Your task to perform on an android device: turn off sleep mode Image 0: 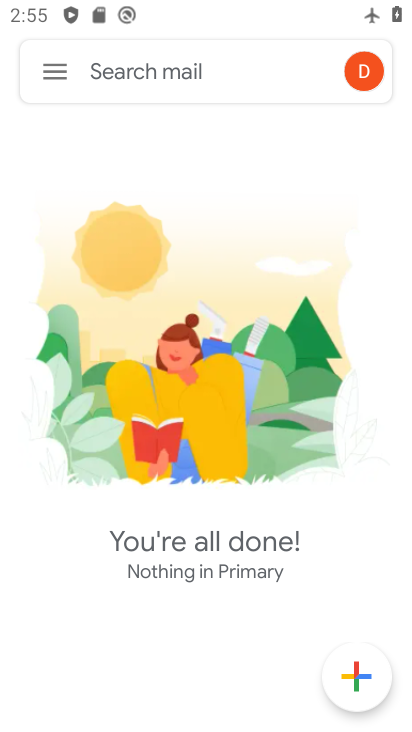
Step 0: press home button
Your task to perform on an android device: turn off sleep mode Image 1: 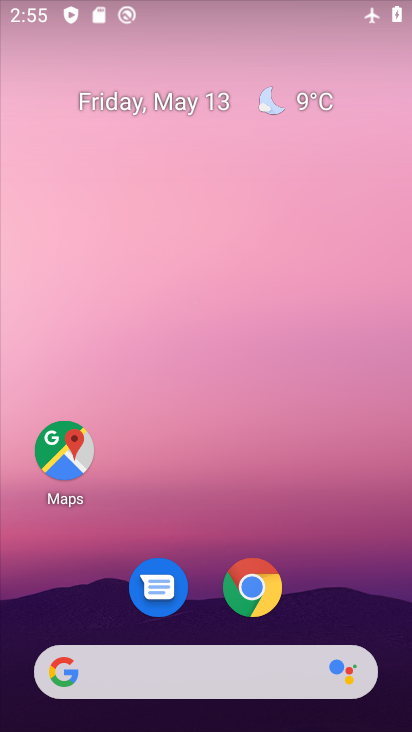
Step 1: drag from (314, 553) to (318, 94)
Your task to perform on an android device: turn off sleep mode Image 2: 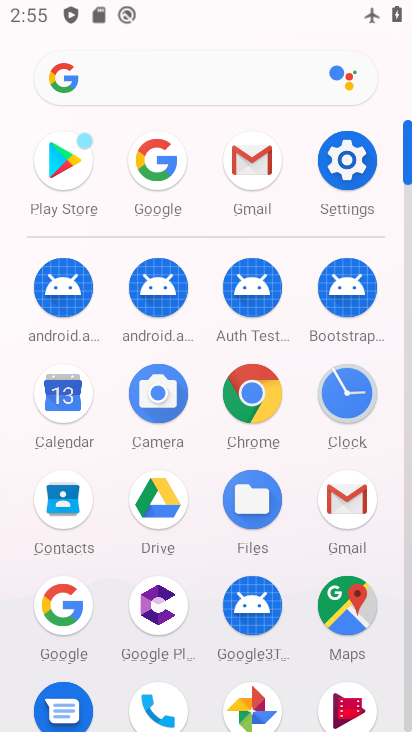
Step 2: click (340, 181)
Your task to perform on an android device: turn off sleep mode Image 3: 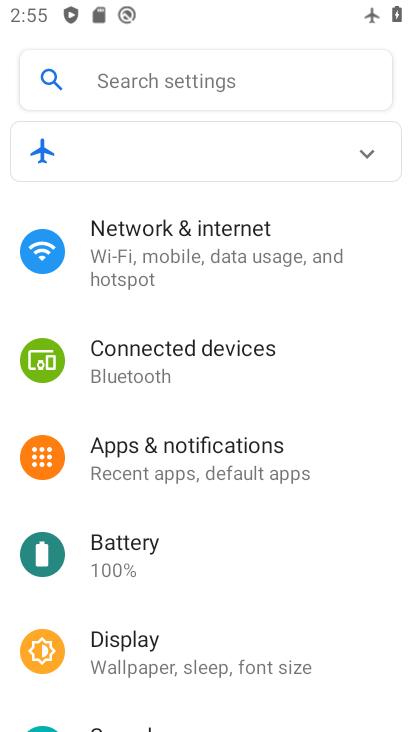
Step 3: drag from (185, 637) to (227, 254)
Your task to perform on an android device: turn off sleep mode Image 4: 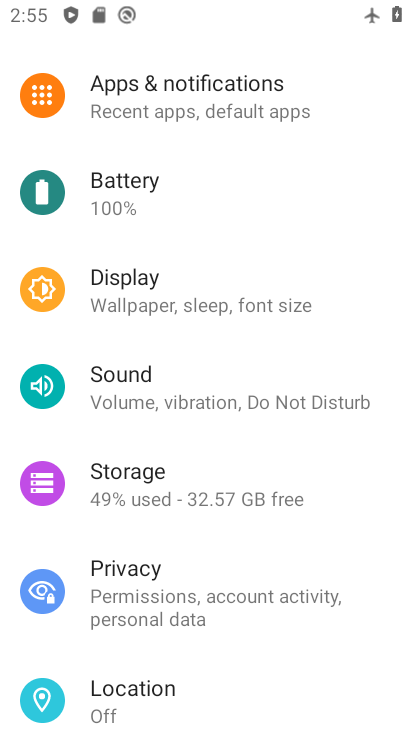
Step 4: drag from (187, 668) to (147, 551)
Your task to perform on an android device: turn off sleep mode Image 5: 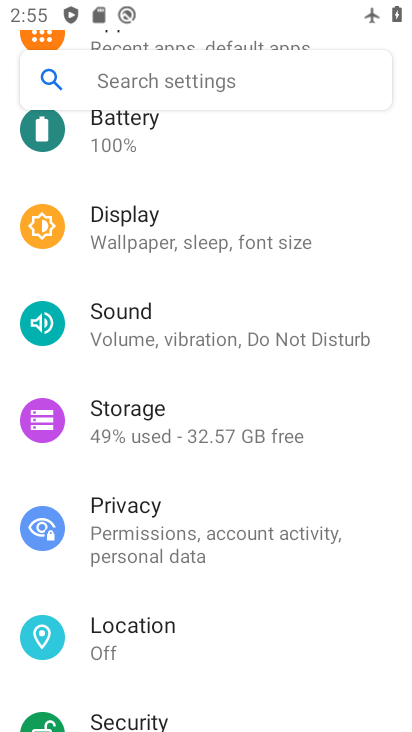
Step 5: click (180, 222)
Your task to perform on an android device: turn off sleep mode Image 6: 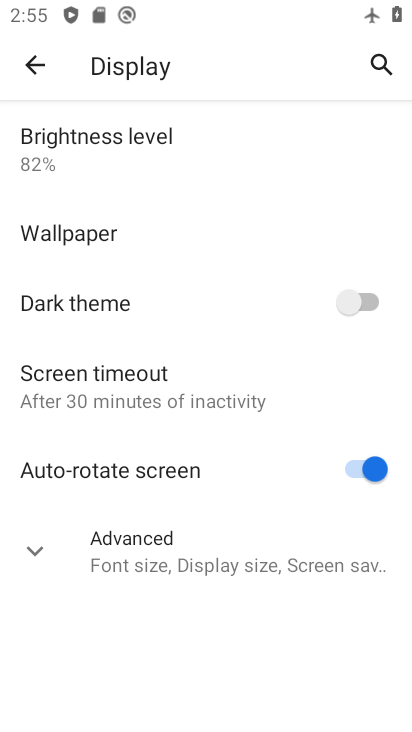
Step 6: click (39, 557)
Your task to perform on an android device: turn off sleep mode Image 7: 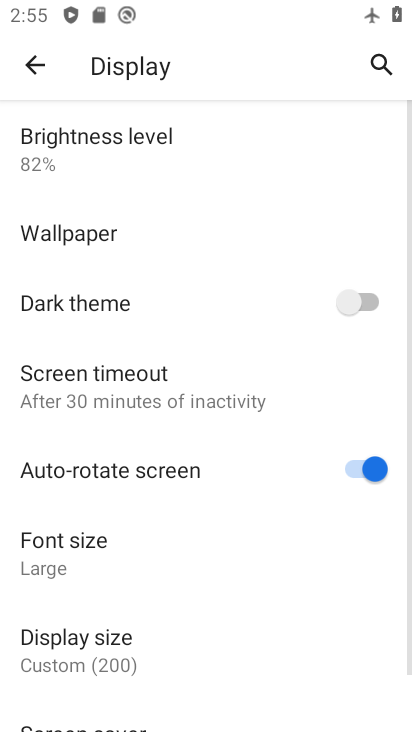
Step 7: task complete